Your task to perform on an android device: toggle airplane mode Image 0: 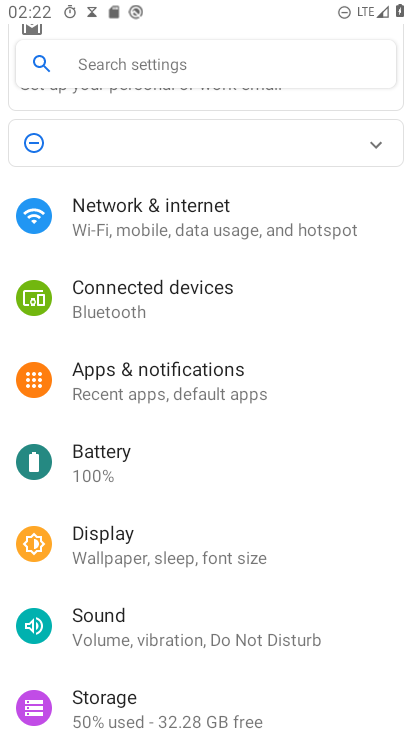
Step 0: press home button
Your task to perform on an android device: toggle airplane mode Image 1: 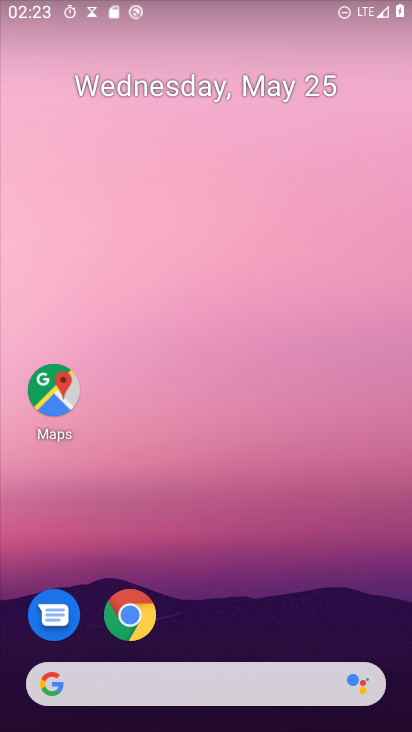
Step 1: drag from (332, 648) to (240, 250)
Your task to perform on an android device: toggle airplane mode Image 2: 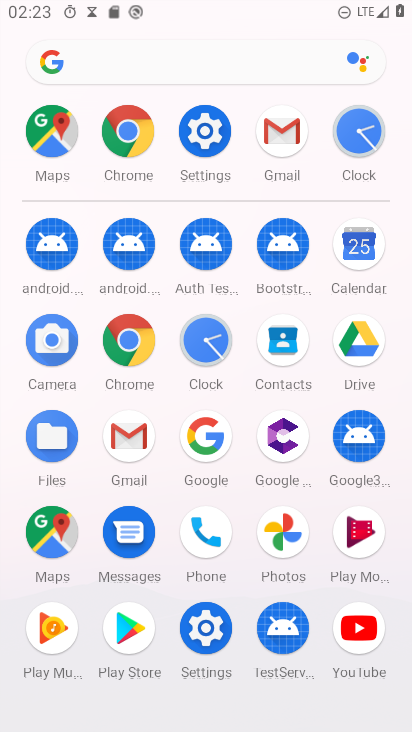
Step 2: click (229, 138)
Your task to perform on an android device: toggle airplane mode Image 3: 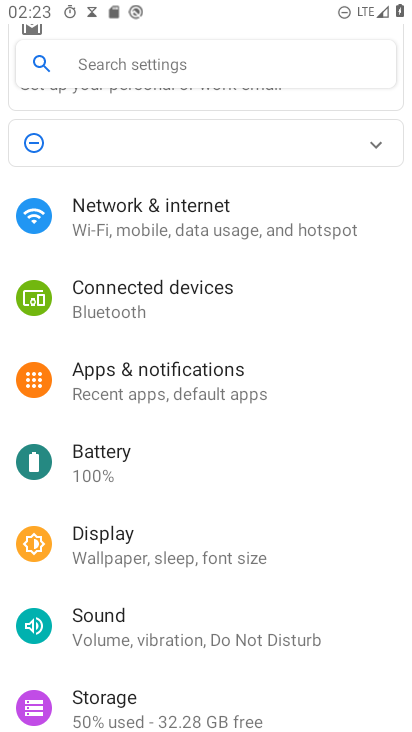
Step 3: click (190, 215)
Your task to perform on an android device: toggle airplane mode Image 4: 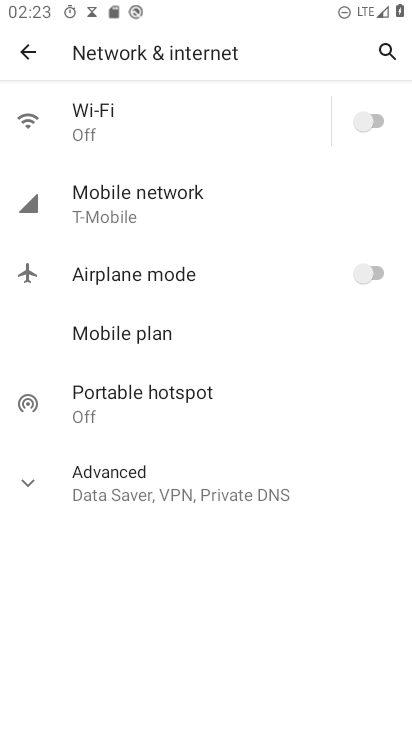
Step 4: task complete